Your task to perform on an android device: Go to calendar. Show me events next week Image 0: 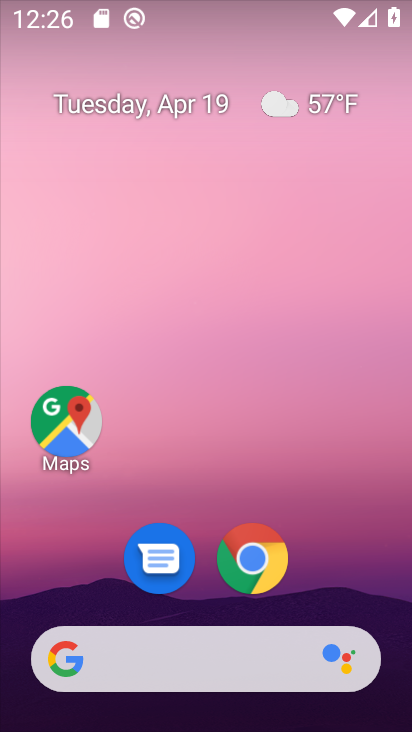
Step 0: drag from (365, 531) to (262, 116)
Your task to perform on an android device: Go to calendar. Show me events next week Image 1: 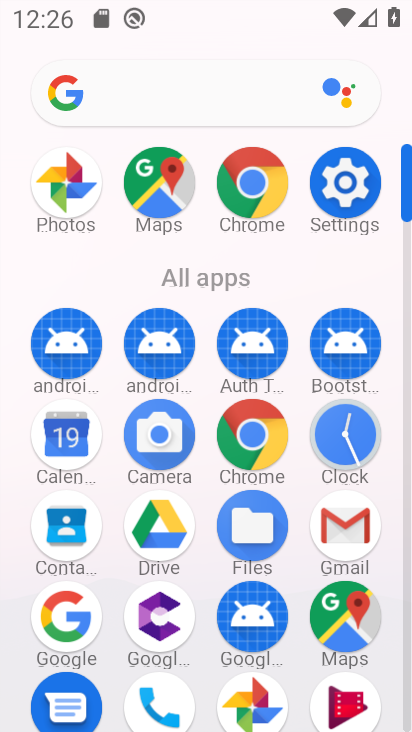
Step 1: click (68, 446)
Your task to perform on an android device: Go to calendar. Show me events next week Image 2: 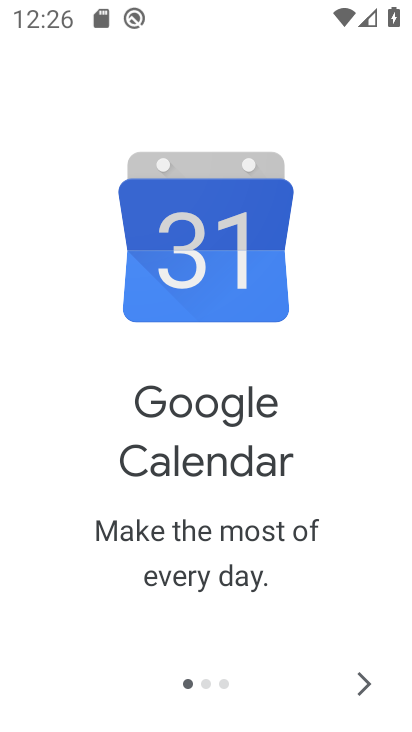
Step 2: click (370, 690)
Your task to perform on an android device: Go to calendar. Show me events next week Image 3: 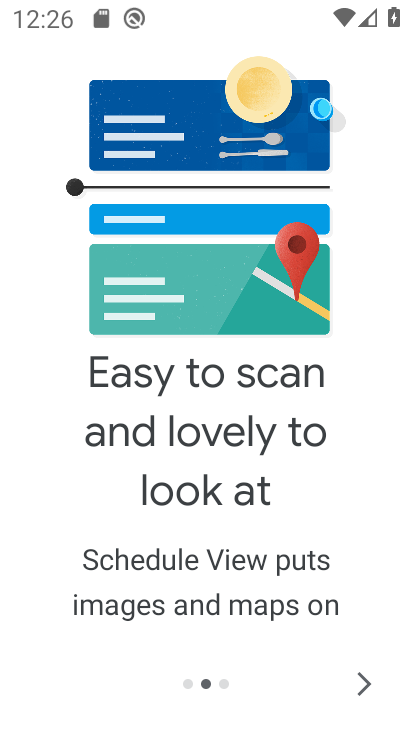
Step 3: click (366, 688)
Your task to perform on an android device: Go to calendar. Show me events next week Image 4: 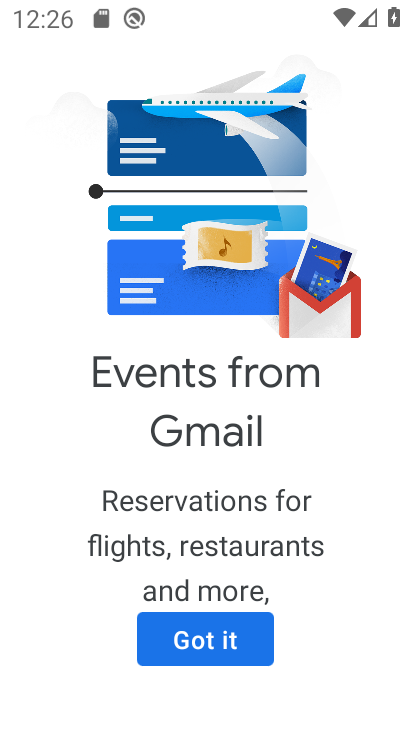
Step 4: click (367, 687)
Your task to perform on an android device: Go to calendar. Show me events next week Image 5: 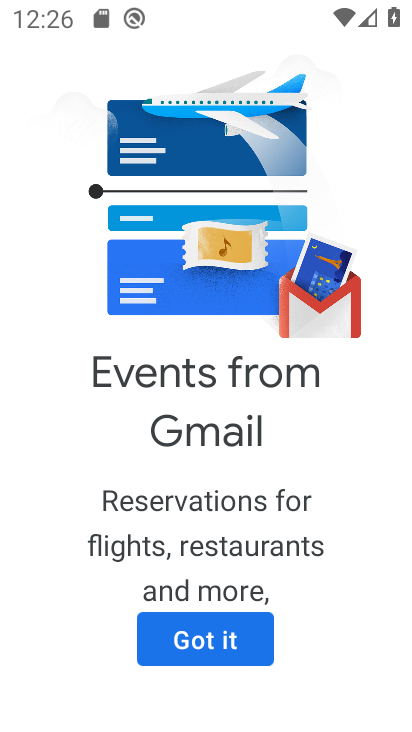
Step 5: click (244, 654)
Your task to perform on an android device: Go to calendar. Show me events next week Image 6: 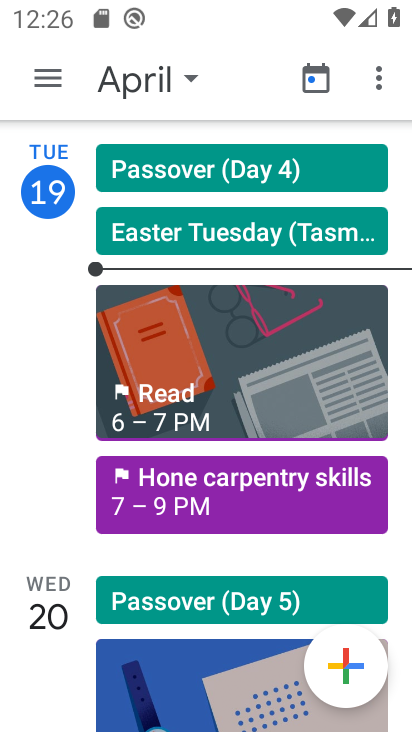
Step 6: click (43, 80)
Your task to perform on an android device: Go to calendar. Show me events next week Image 7: 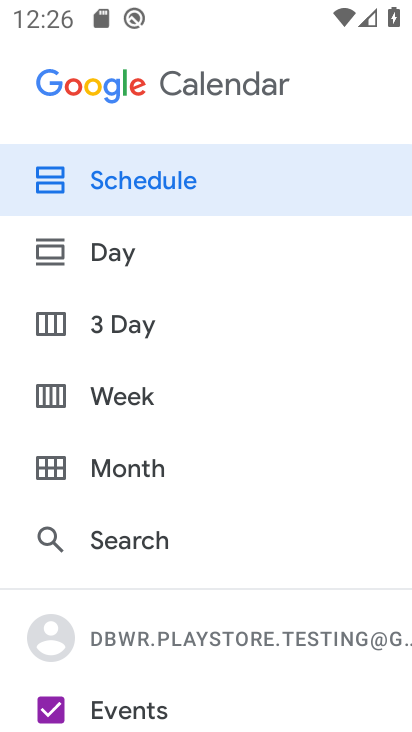
Step 7: click (112, 409)
Your task to perform on an android device: Go to calendar. Show me events next week Image 8: 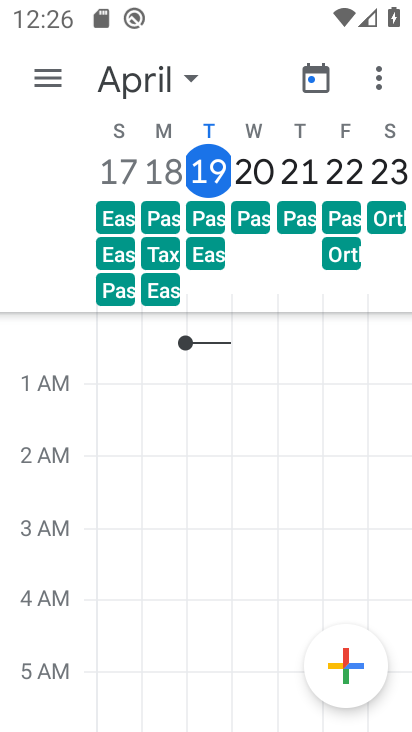
Step 8: click (50, 69)
Your task to perform on an android device: Go to calendar. Show me events next week Image 9: 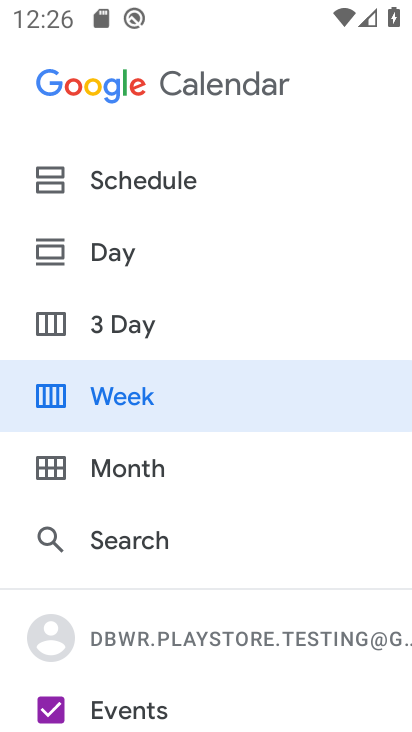
Step 9: drag from (213, 674) to (181, 139)
Your task to perform on an android device: Go to calendar. Show me events next week Image 10: 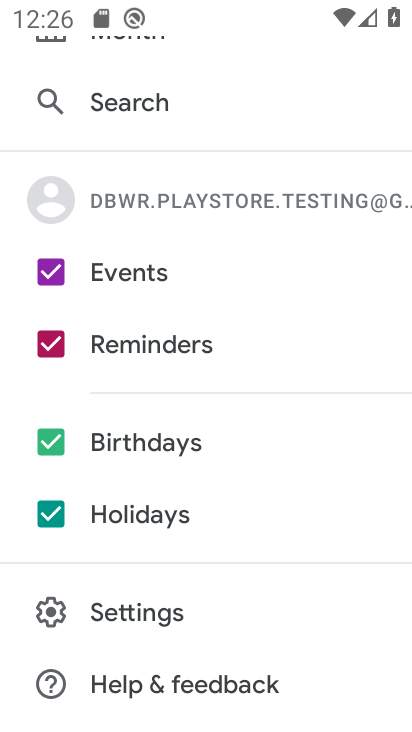
Step 10: click (54, 515)
Your task to perform on an android device: Go to calendar. Show me events next week Image 11: 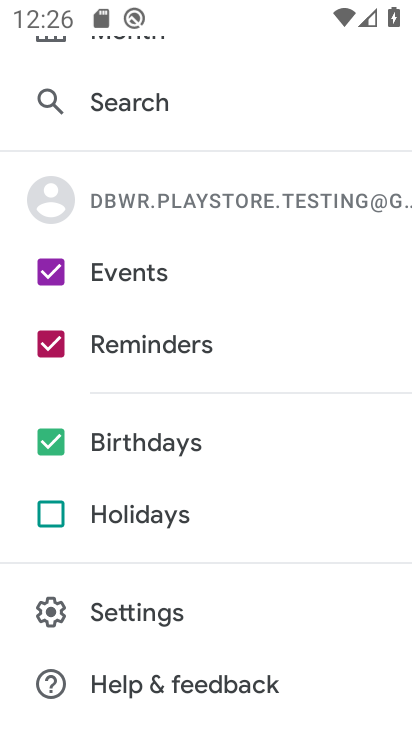
Step 11: click (49, 439)
Your task to perform on an android device: Go to calendar. Show me events next week Image 12: 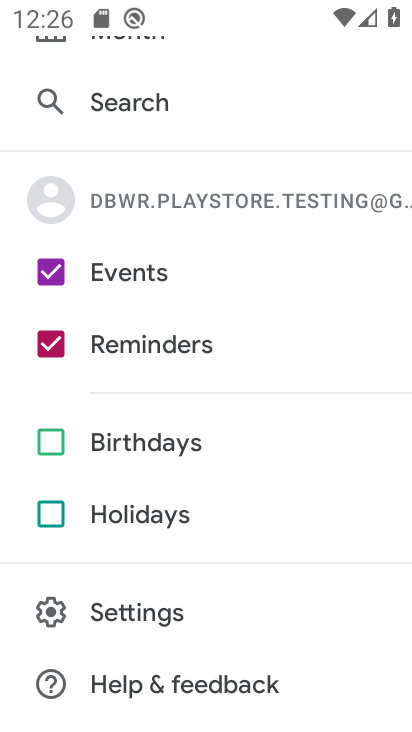
Step 12: click (50, 339)
Your task to perform on an android device: Go to calendar. Show me events next week Image 13: 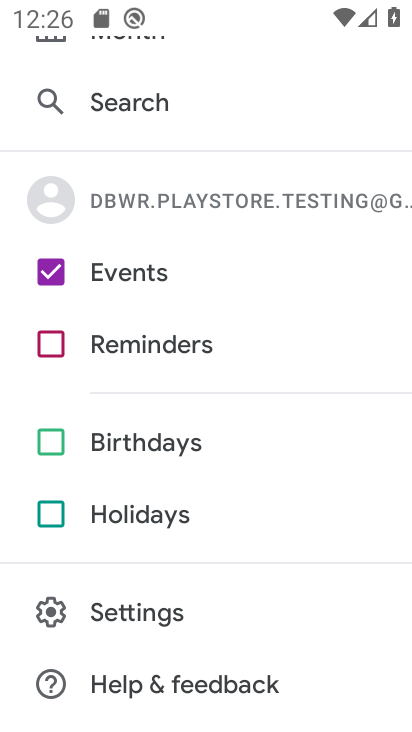
Step 13: task complete